Your task to perform on an android device: Open Youtube and go to "Your channel" Image 0: 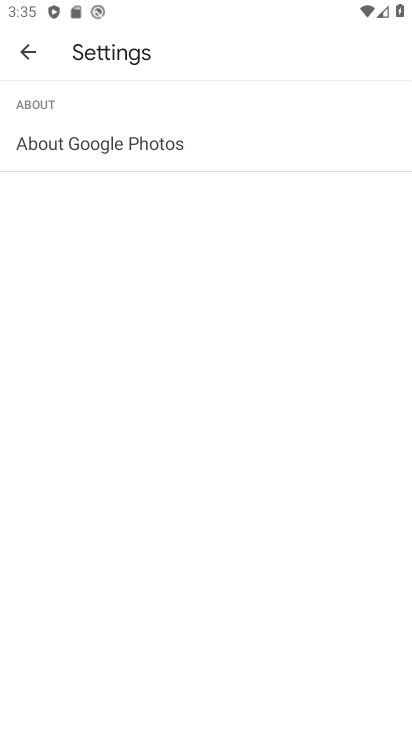
Step 0: press back button
Your task to perform on an android device: Open Youtube and go to "Your channel" Image 1: 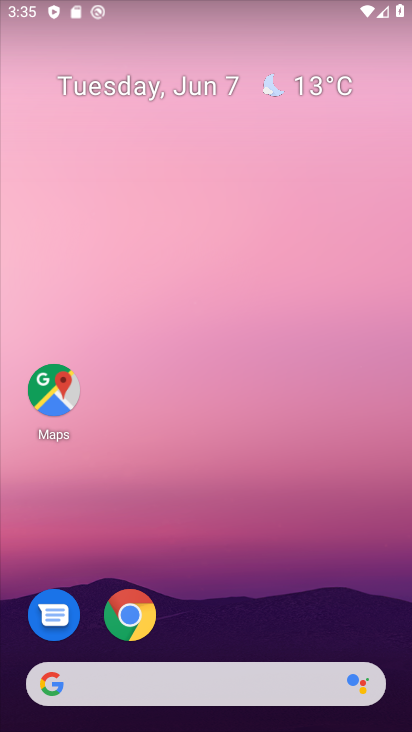
Step 1: drag from (209, 633) to (179, 157)
Your task to perform on an android device: Open Youtube and go to "Your channel" Image 2: 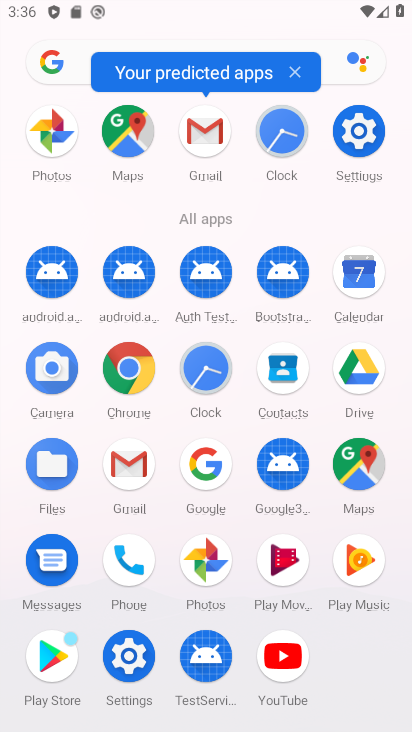
Step 2: drag from (295, 625) to (218, 165)
Your task to perform on an android device: Open Youtube and go to "Your channel" Image 3: 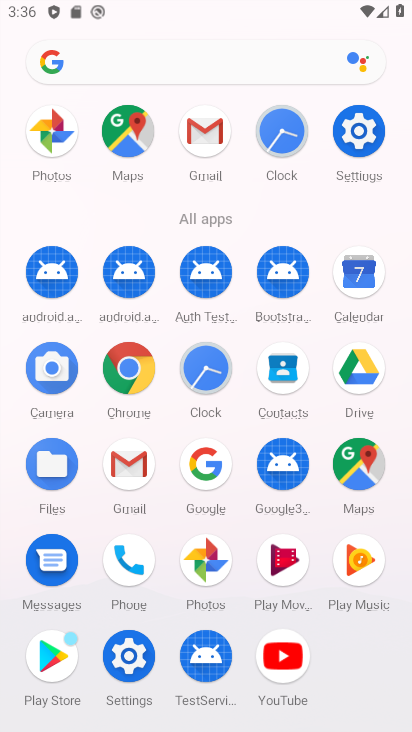
Step 3: drag from (255, 640) to (228, 519)
Your task to perform on an android device: Open Youtube and go to "Your channel" Image 4: 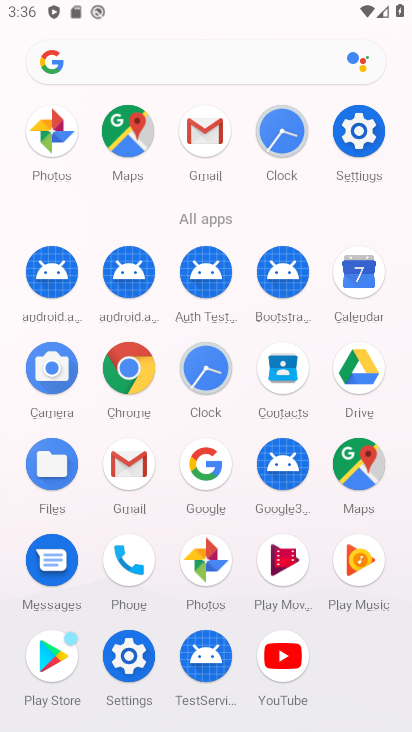
Step 4: click (282, 658)
Your task to perform on an android device: Open Youtube and go to "Your channel" Image 5: 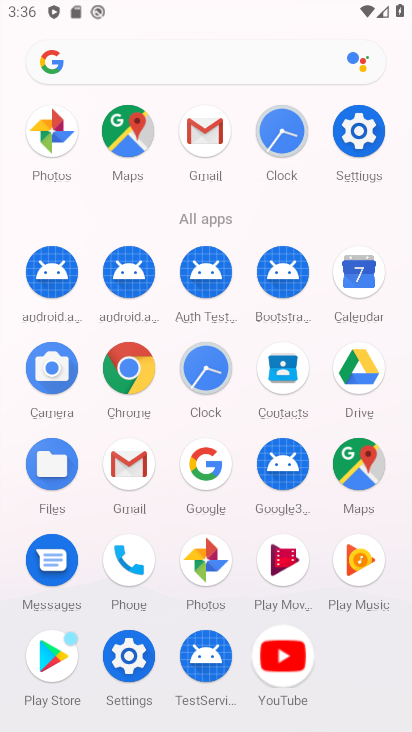
Step 5: click (282, 658)
Your task to perform on an android device: Open Youtube and go to "Your channel" Image 6: 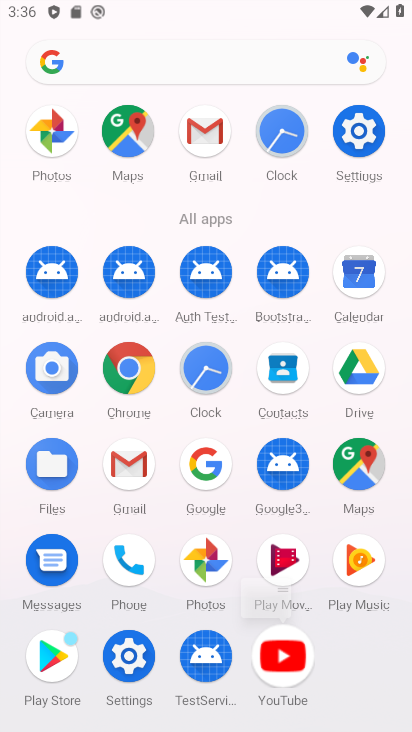
Step 6: click (282, 658)
Your task to perform on an android device: Open Youtube and go to "Your channel" Image 7: 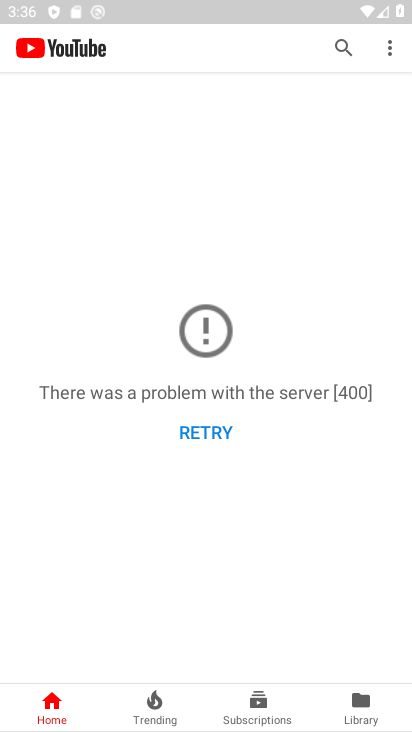
Step 7: task complete